Your task to perform on an android device: Open Google Chrome Image 0: 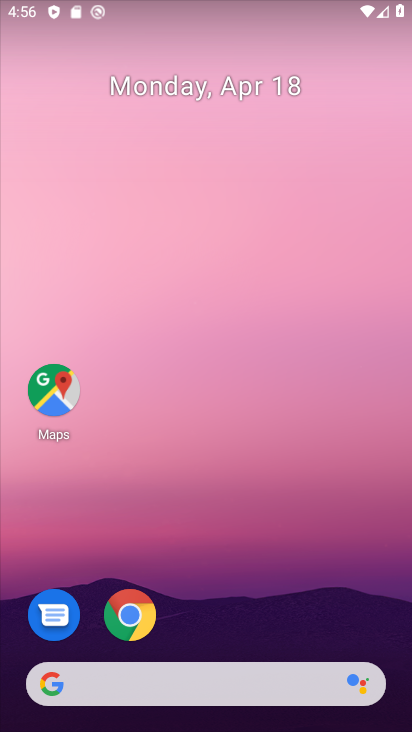
Step 0: drag from (333, 567) to (372, 20)
Your task to perform on an android device: Open Google Chrome Image 1: 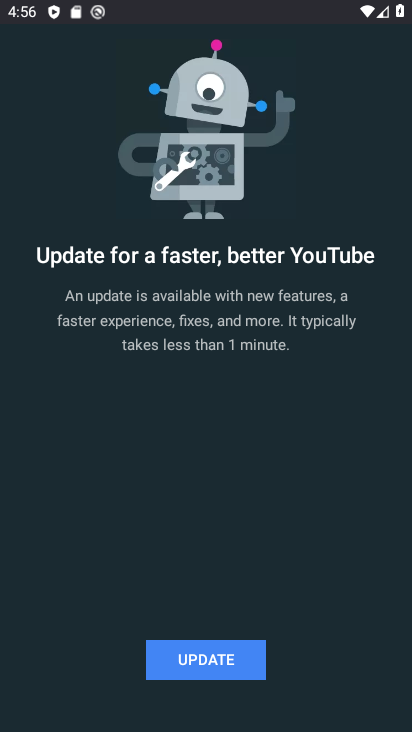
Step 1: press home button
Your task to perform on an android device: Open Google Chrome Image 2: 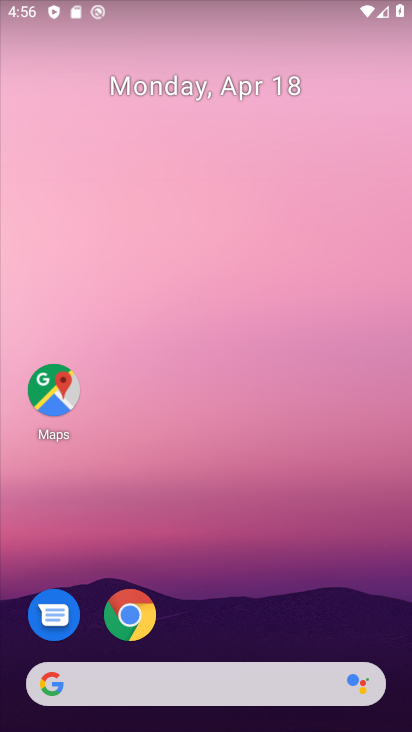
Step 2: click (136, 610)
Your task to perform on an android device: Open Google Chrome Image 3: 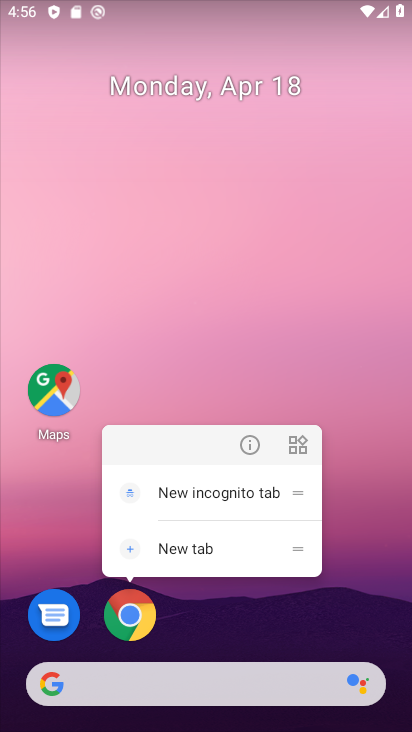
Step 3: click (136, 610)
Your task to perform on an android device: Open Google Chrome Image 4: 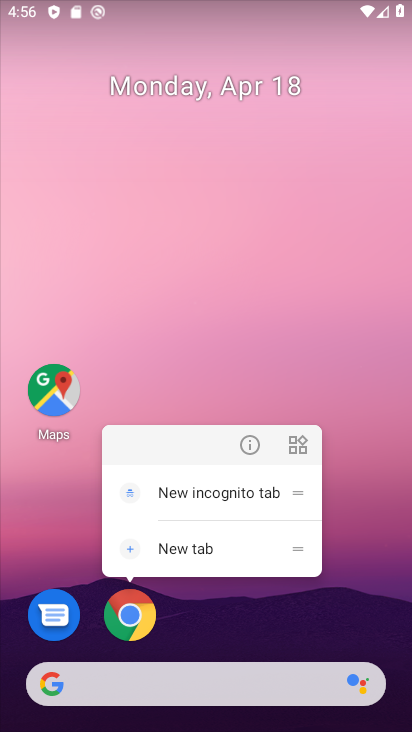
Step 4: click (136, 610)
Your task to perform on an android device: Open Google Chrome Image 5: 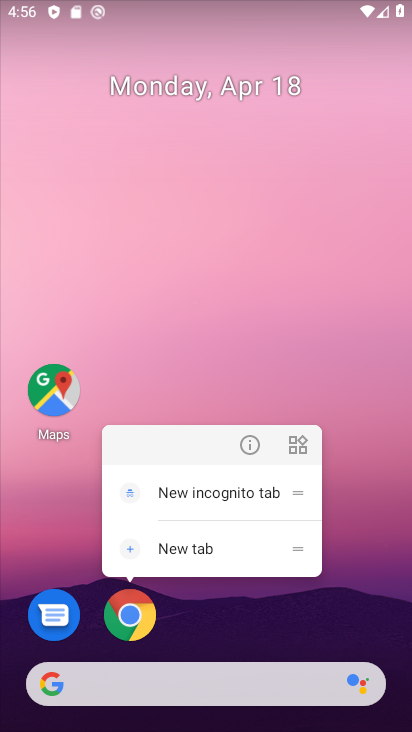
Step 5: click (134, 610)
Your task to perform on an android device: Open Google Chrome Image 6: 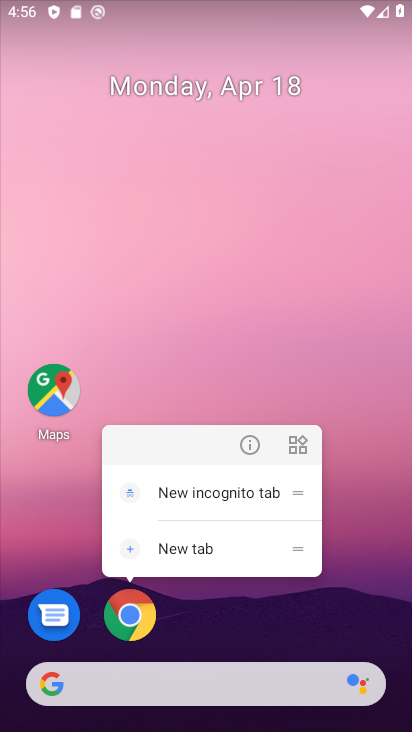
Step 6: click (134, 610)
Your task to perform on an android device: Open Google Chrome Image 7: 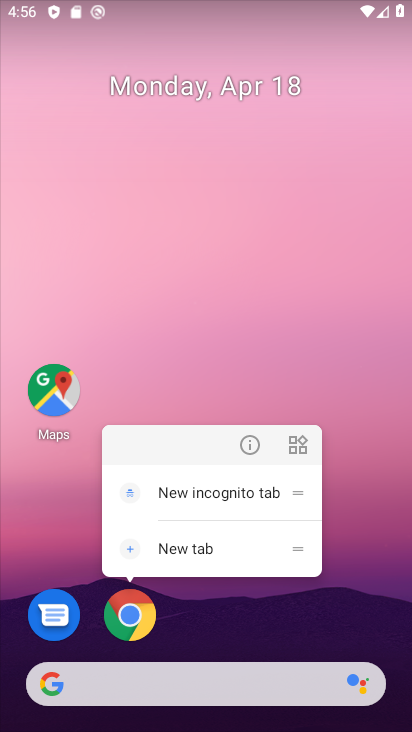
Step 7: click (343, 604)
Your task to perform on an android device: Open Google Chrome Image 8: 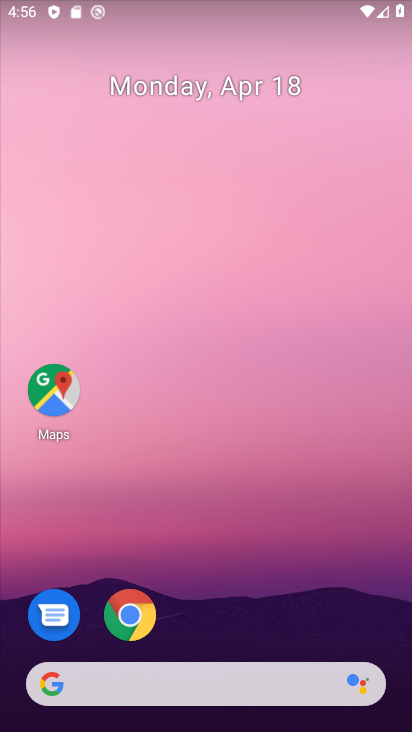
Step 8: drag from (341, 602) to (225, 23)
Your task to perform on an android device: Open Google Chrome Image 9: 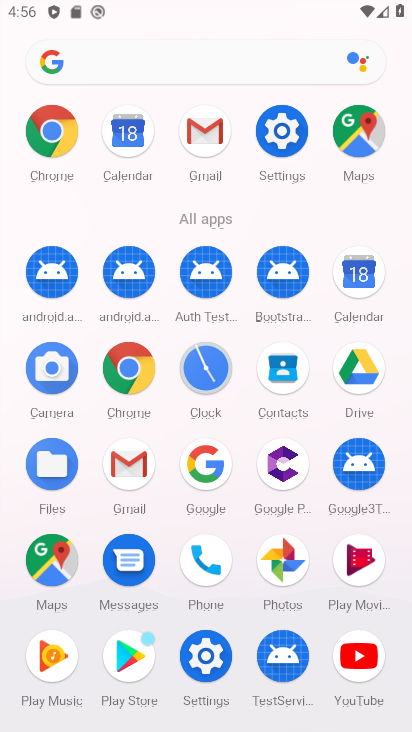
Step 9: drag from (39, 496) to (193, 456)
Your task to perform on an android device: Open Google Chrome Image 10: 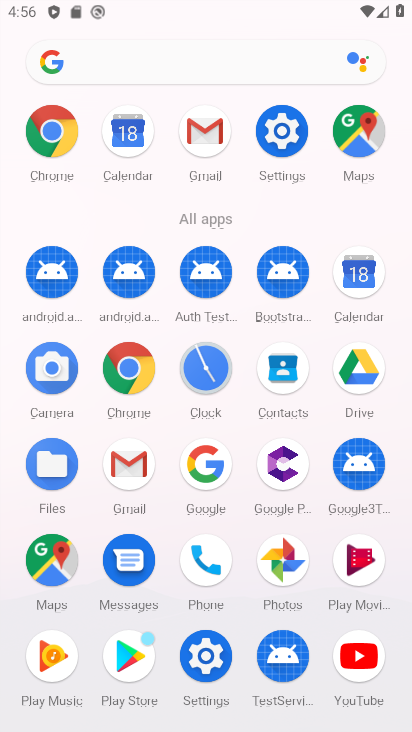
Step 10: click (47, 137)
Your task to perform on an android device: Open Google Chrome Image 11: 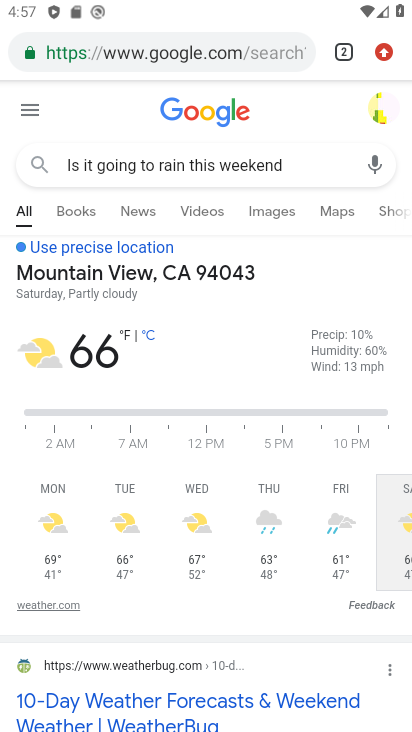
Step 11: task complete